Your task to perform on an android device: change the upload size in google photos Image 0: 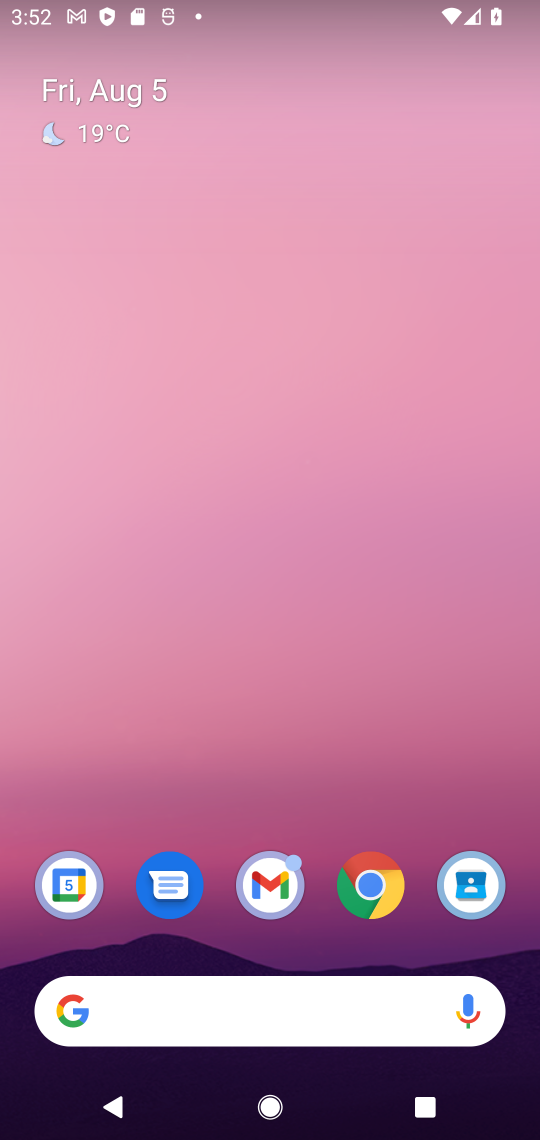
Step 0: drag from (327, 848) to (327, 168)
Your task to perform on an android device: change the upload size in google photos Image 1: 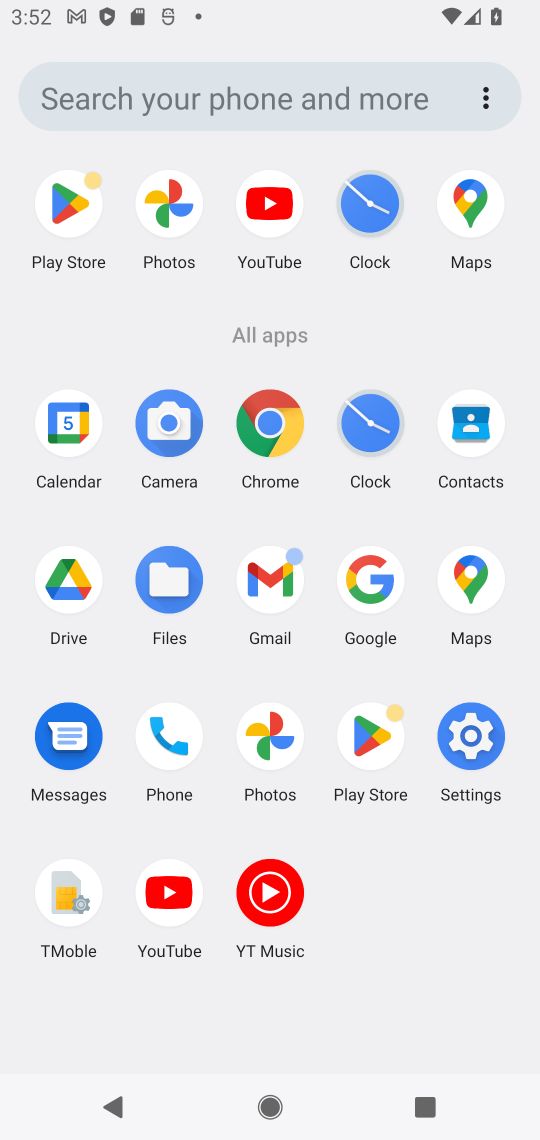
Step 1: click (278, 732)
Your task to perform on an android device: change the upload size in google photos Image 2: 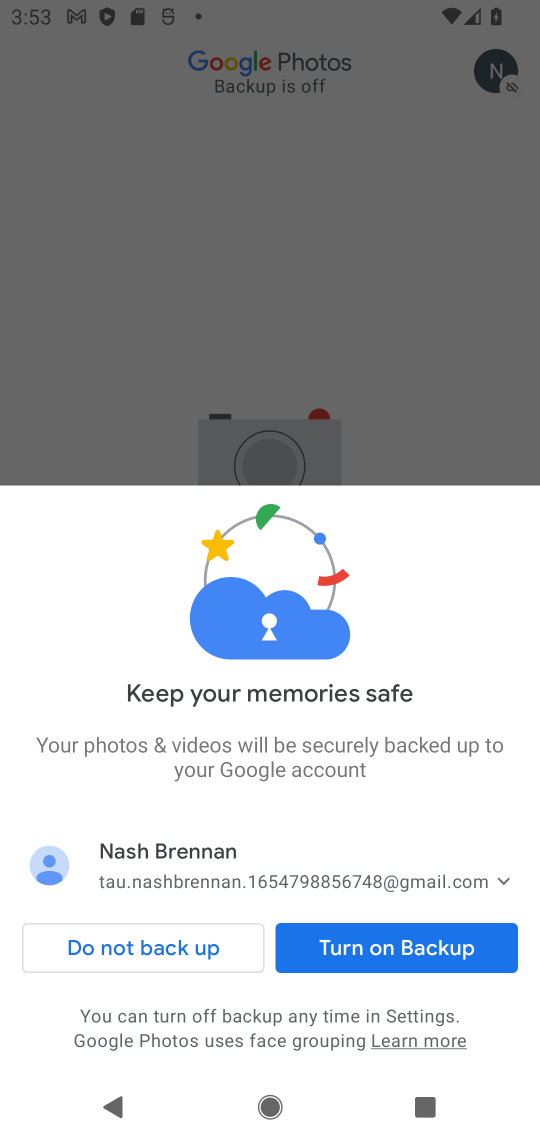
Step 2: click (147, 946)
Your task to perform on an android device: change the upload size in google photos Image 3: 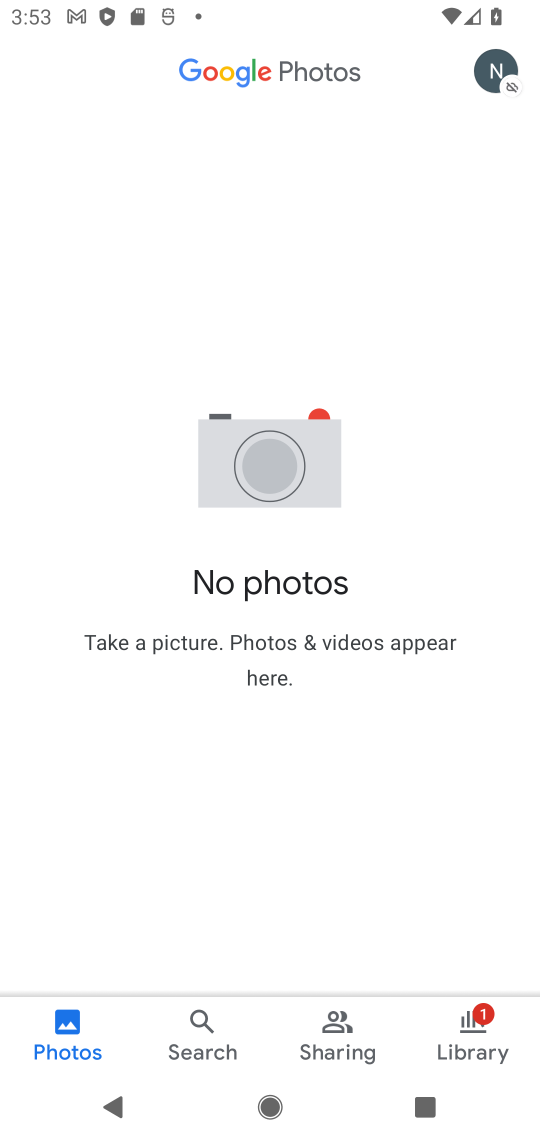
Step 3: click (499, 69)
Your task to perform on an android device: change the upload size in google photos Image 4: 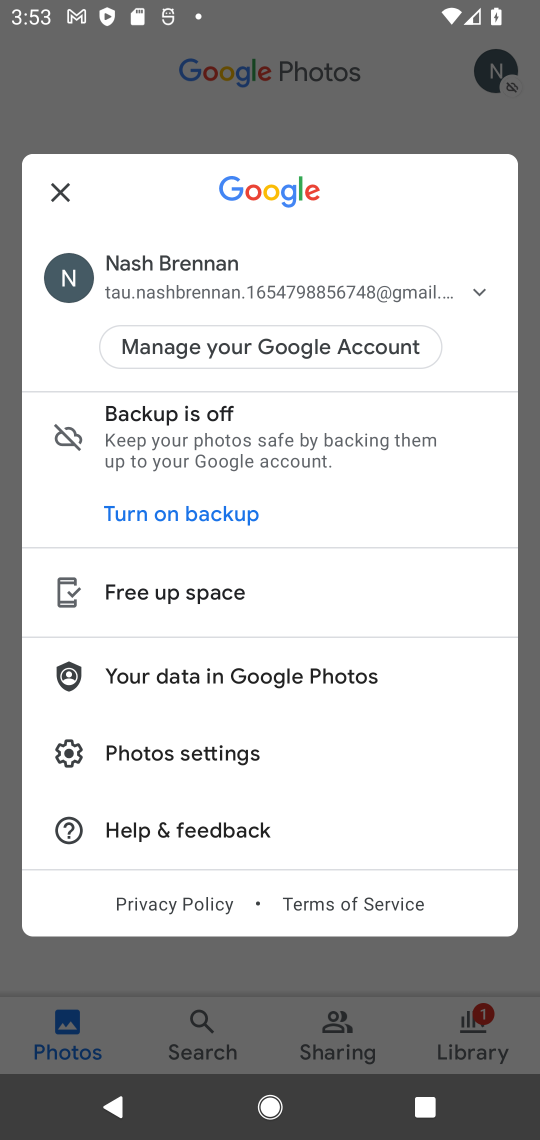
Step 4: click (186, 758)
Your task to perform on an android device: change the upload size in google photos Image 5: 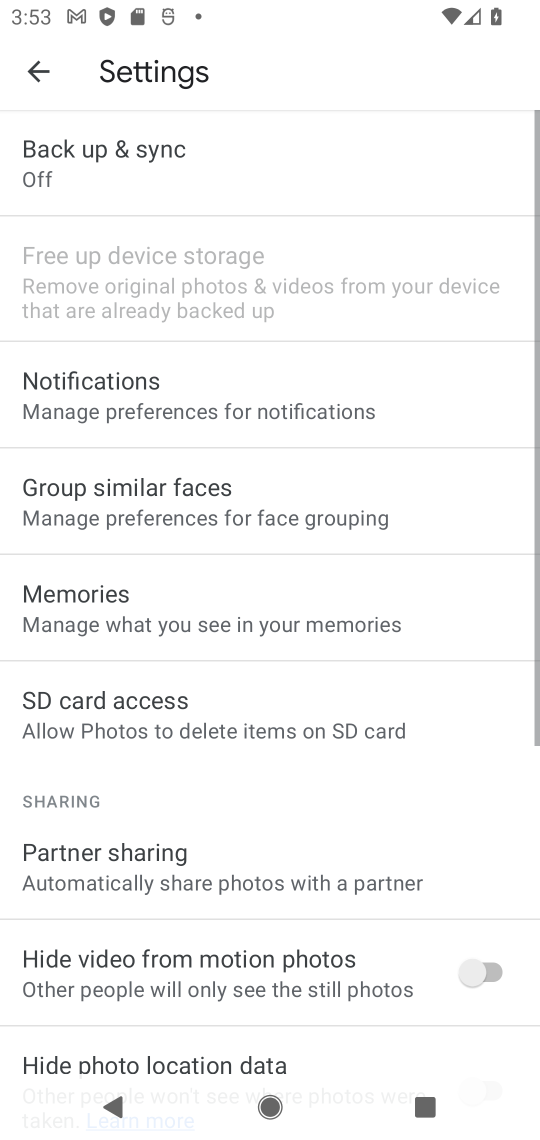
Step 5: click (57, 153)
Your task to perform on an android device: change the upload size in google photos Image 6: 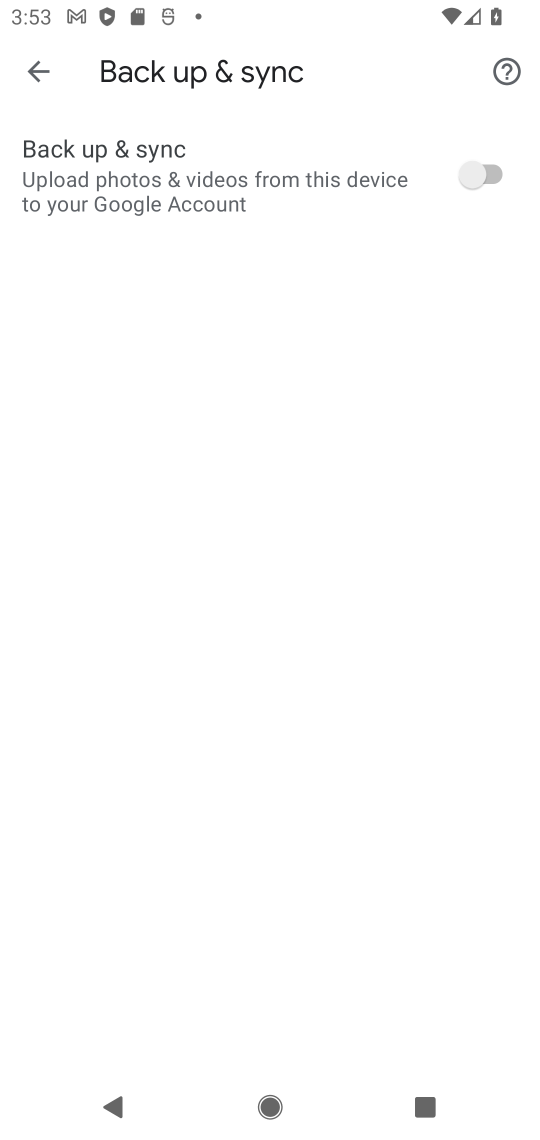
Step 6: click (478, 176)
Your task to perform on an android device: change the upload size in google photos Image 7: 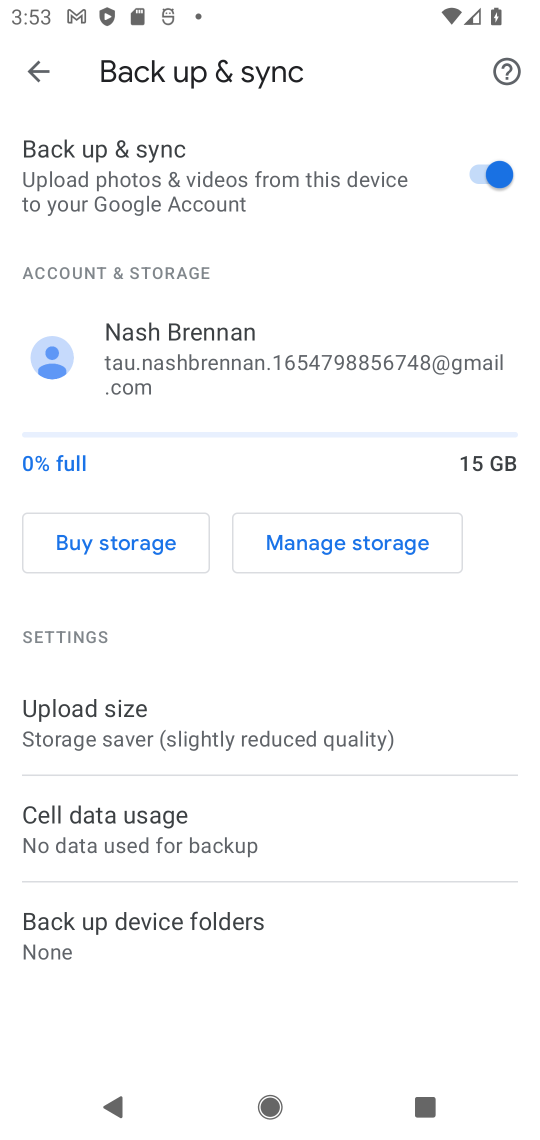
Step 7: task complete